Your task to perform on an android device: toggle location history Image 0: 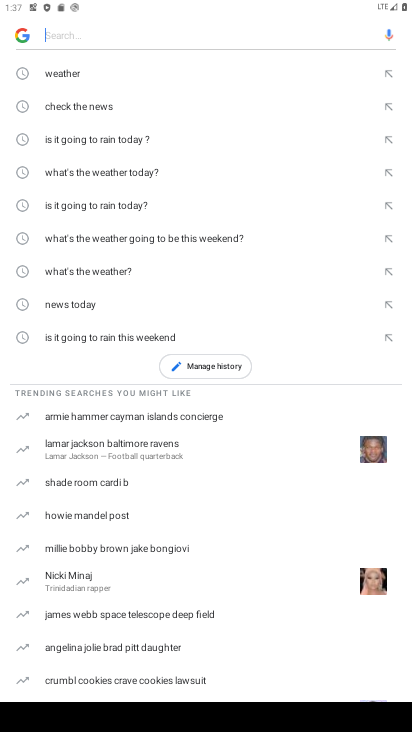
Step 0: press home button
Your task to perform on an android device: toggle location history Image 1: 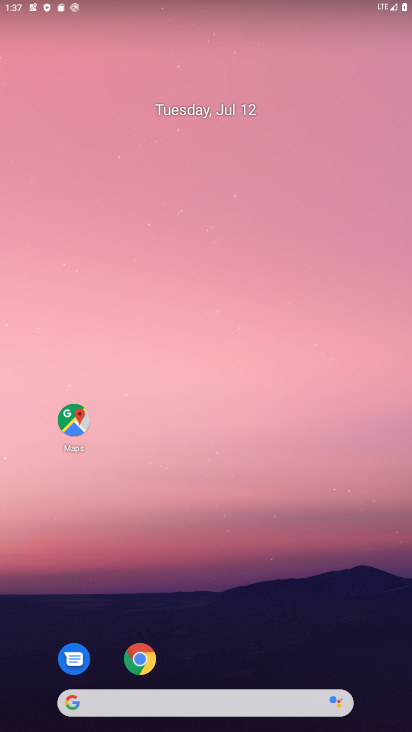
Step 1: drag from (216, 699) to (222, 110)
Your task to perform on an android device: toggle location history Image 2: 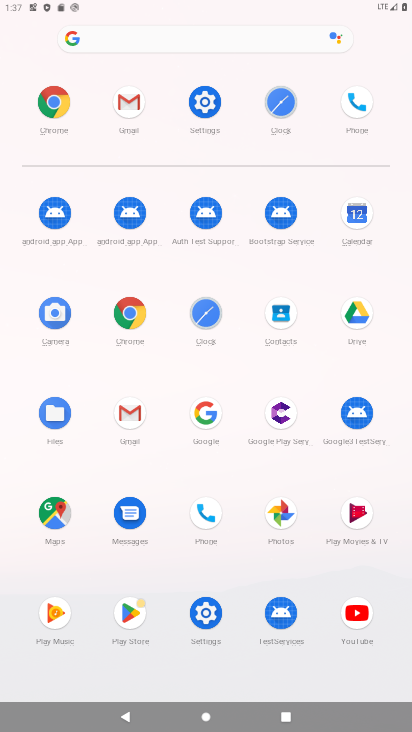
Step 2: click (209, 100)
Your task to perform on an android device: toggle location history Image 3: 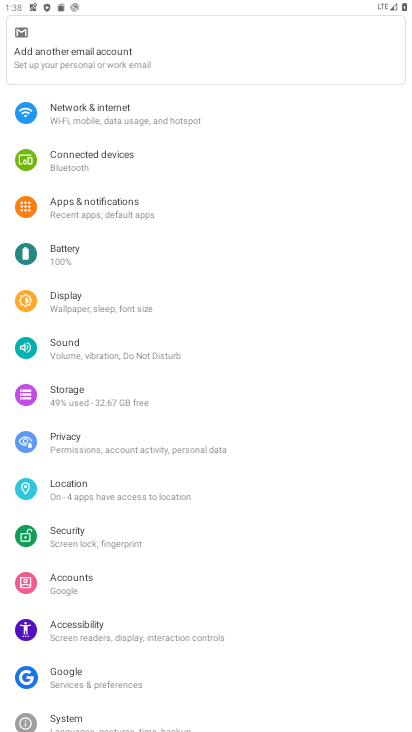
Step 3: click (89, 492)
Your task to perform on an android device: toggle location history Image 4: 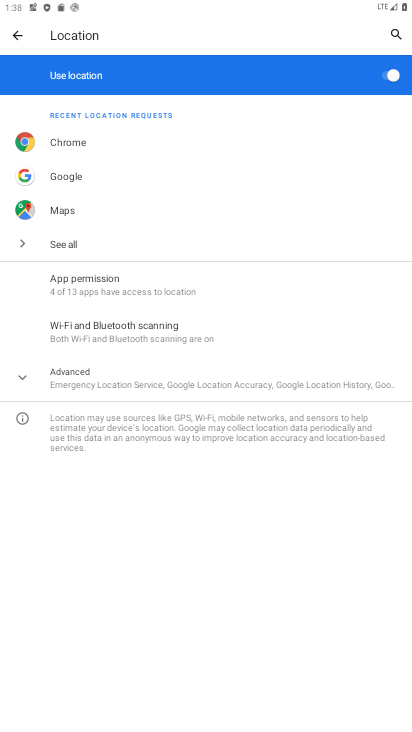
Step 4: click (59, 367)
Your task to perform on an android device: toggle location history Image 5: 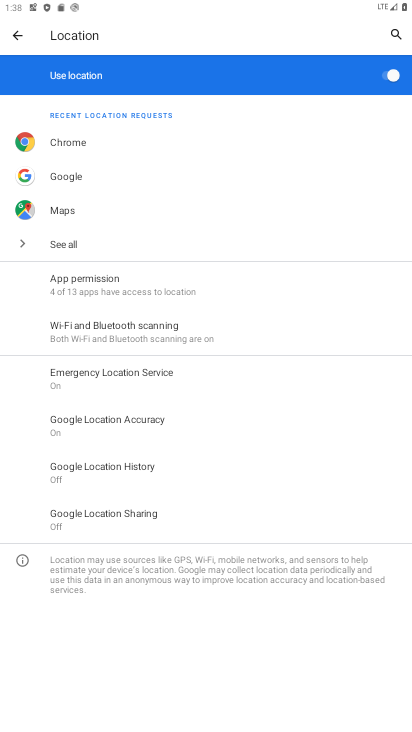
Step 5: click (102, 461)
Your task to perform on an android device: toggle location history Image 6: 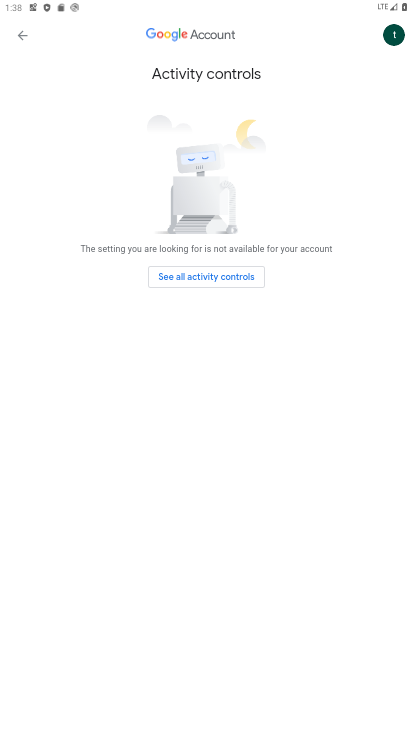
Step 6: task complete